Your task to perform on an android device: allow cookies in the chrome app Image 0: 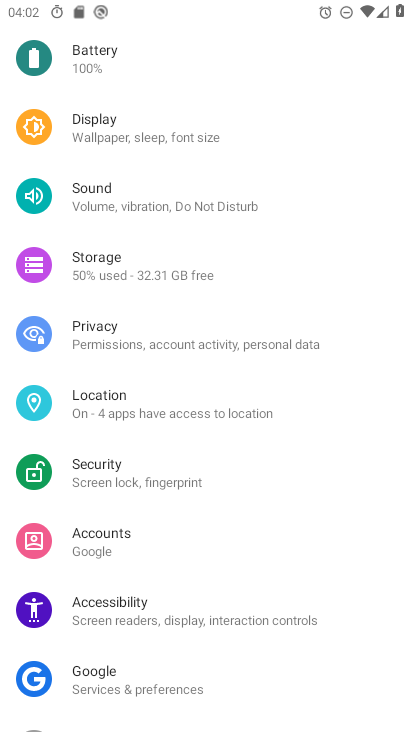
Step 0: press home button
Your task to perform on an android device: allow cookies in the chrome app Image 1: 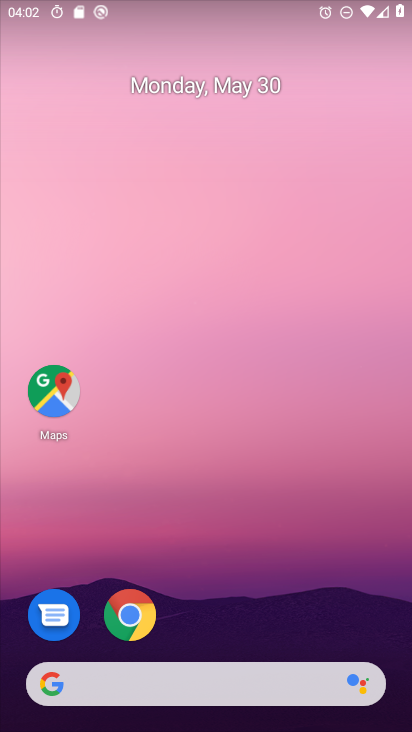
Step 1: click (131, 615)
Your task to perform on an android device: allow cookies in the chrome app Image 2: 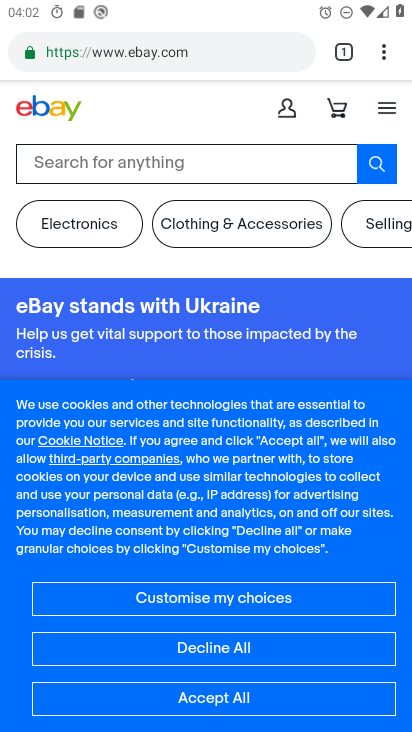
Step 2: click (384, 51)
Your task to perform on an android device: allow cookies in the chrome app Image 3: 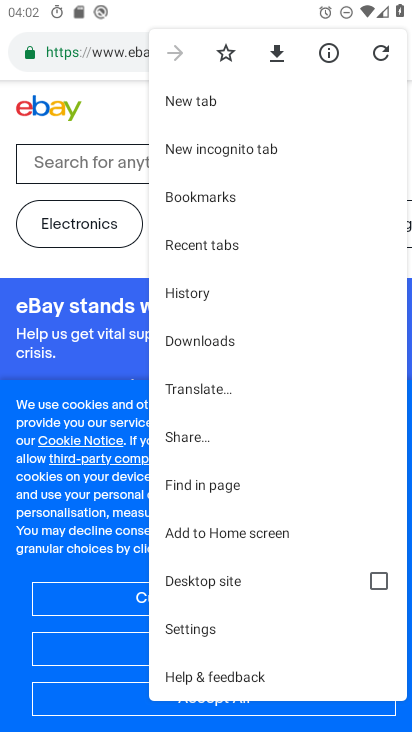
Step 3: click (200, 630)
Your task to perform on an android device: allow cookies in the chrome app Image 4: 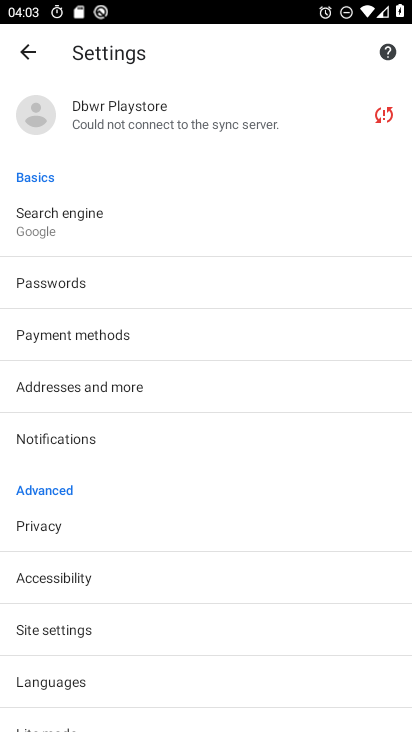
Step 4: drag from (105, 477) to (82, 323)
Your task to perform on an android device: allow cookies in the chrome app Image 5: 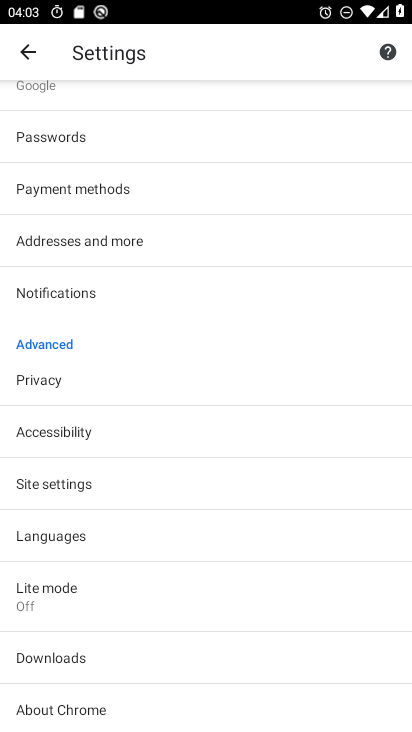
Step 5: click (66, 474)
Your task to perform on an android device: allow cookies in the chrome app Image 6: 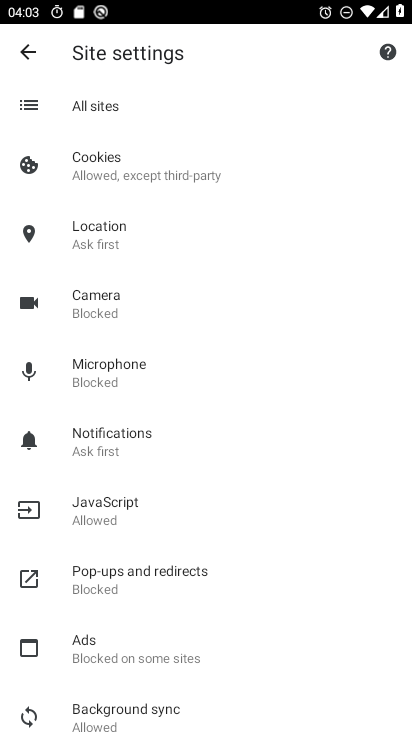
Step 6: click (175, 173)
Your task to perform on an android device: allow cookies in the chrome app Image 7: 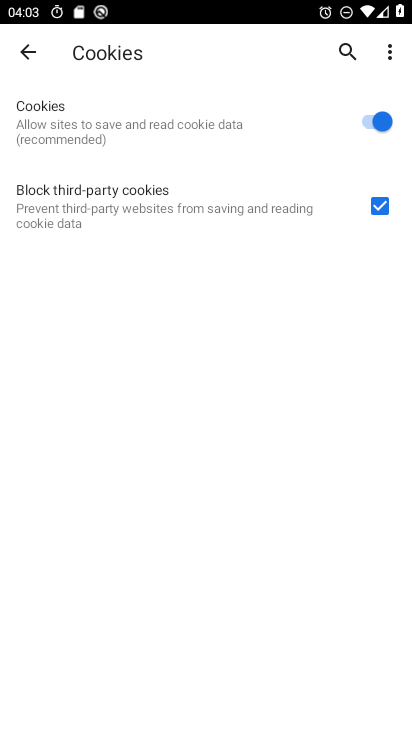
Step 7: task complete